Your task to perform on an android device: Open settings on Google Maps Image 0: 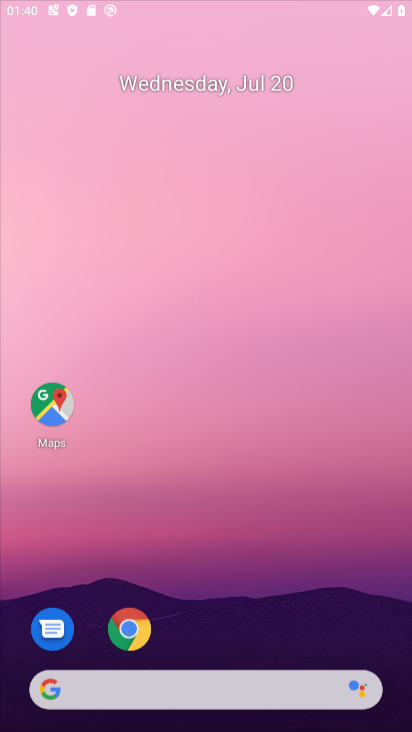
Step 0: click (241, 21)
Your task to perform on an android device: Open settings on Google Maps Image 1: 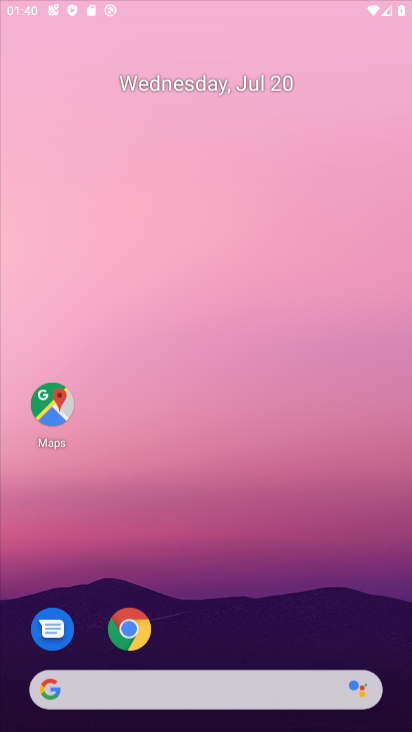
Step 1: press home button
Your task to perform on an android device: Open settings on Google Maps Image 2: 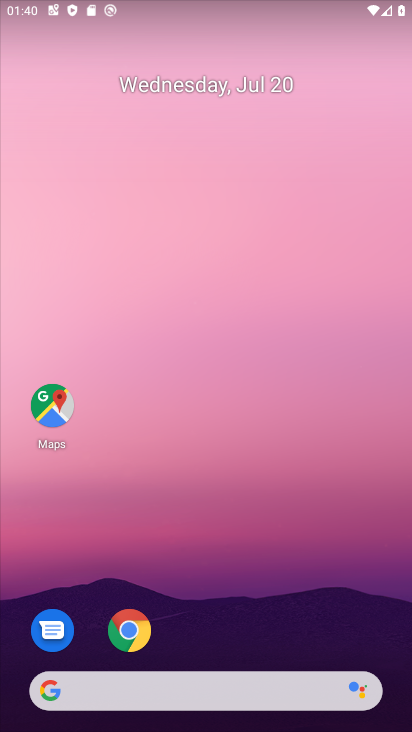
Step 2: drag from (283, 598) to (260, 142)
Your task to perform on an android device: Open settings on Google Maps Image 3: 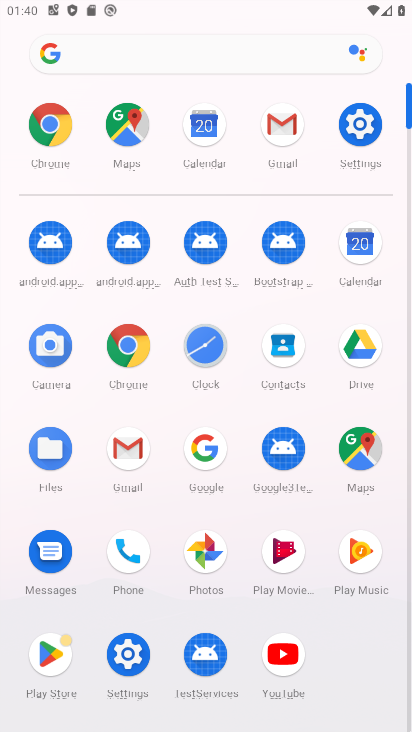
Step 3: click (370, 450)
Your task to perform on an android device: Open settings on Google Maps Image 4: 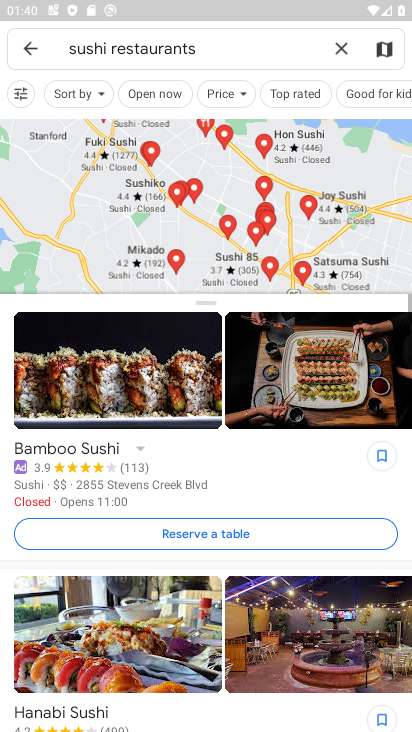
Step 4: click (25, 42)
Your task to perform on an android device: Open settings on Google Maps Image 5: 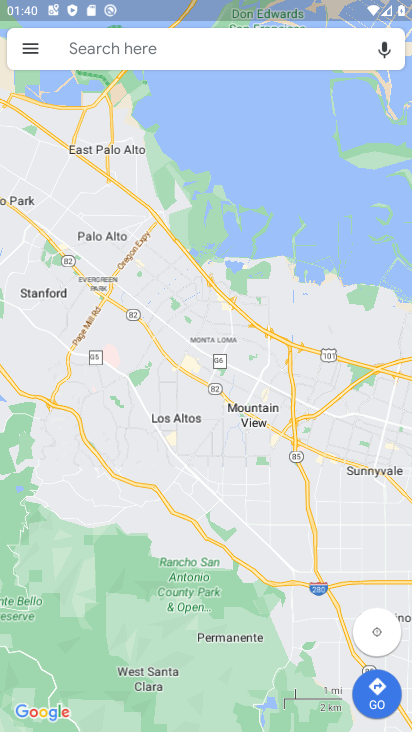
Step 5: click (25, 42)
Your task to perform on an android device: Open settings on Google Maps Image 6: 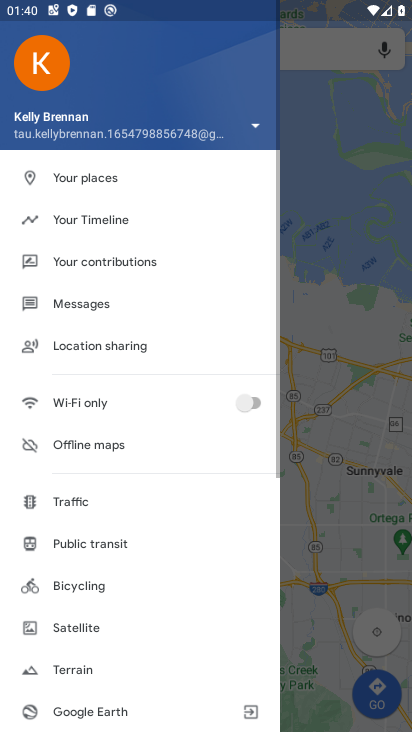
Step 6: drag from (128, 498) to (189, 109)
Your task to perform on an android device: Open settings on Google Maps Image 7: 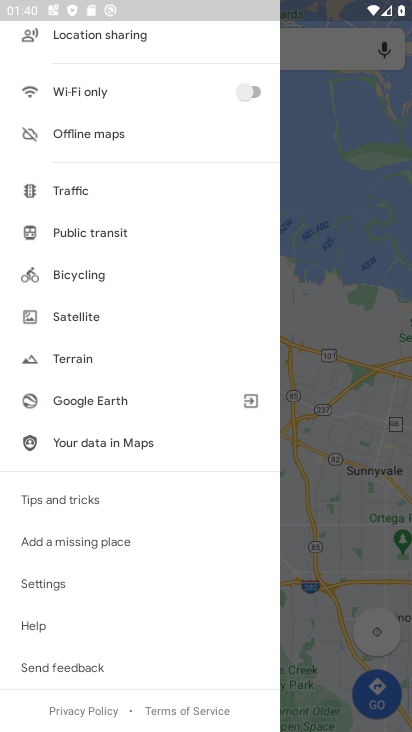
Step 7: click (51, 582)
Your task to perform on an android device: Open settings on Google Maps Image 8: 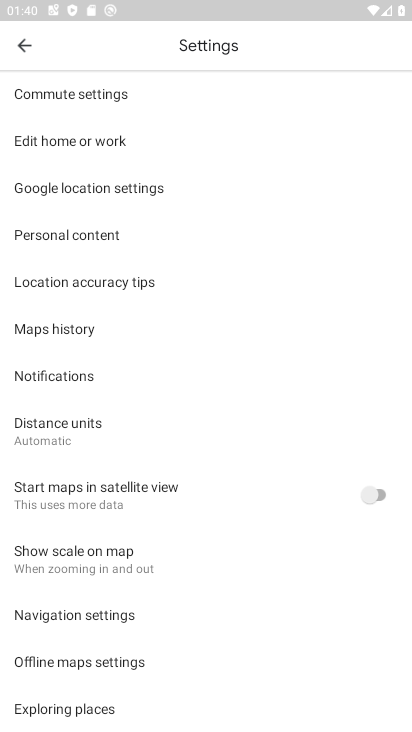
Step 8: task complete